Your task to perform on an android device: Search for bose soundlink mini on costco, select the first entry, and add it to the cart. Image 0: 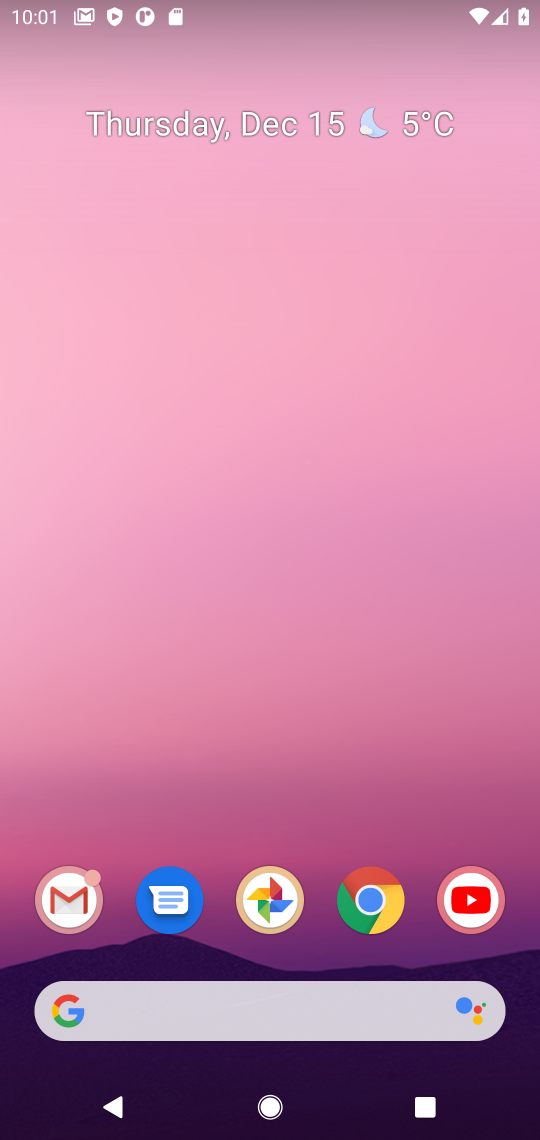
Step 0: click (364, 909)
Your task to perform on an android device: Search for bose soundlink mini on costco, select the first entry, and add it to the cart. Image 1: 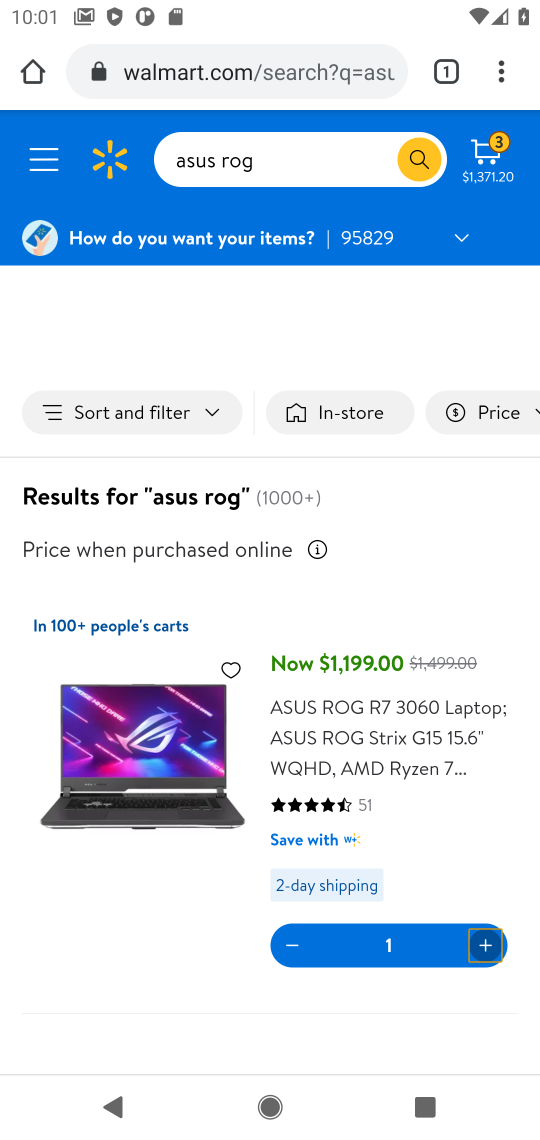
Step 1: click (236, 71)
Your task to perform on an android device: Search for bose soundlink mini on costco, select the first entry, and add it to the cart. Image 2: 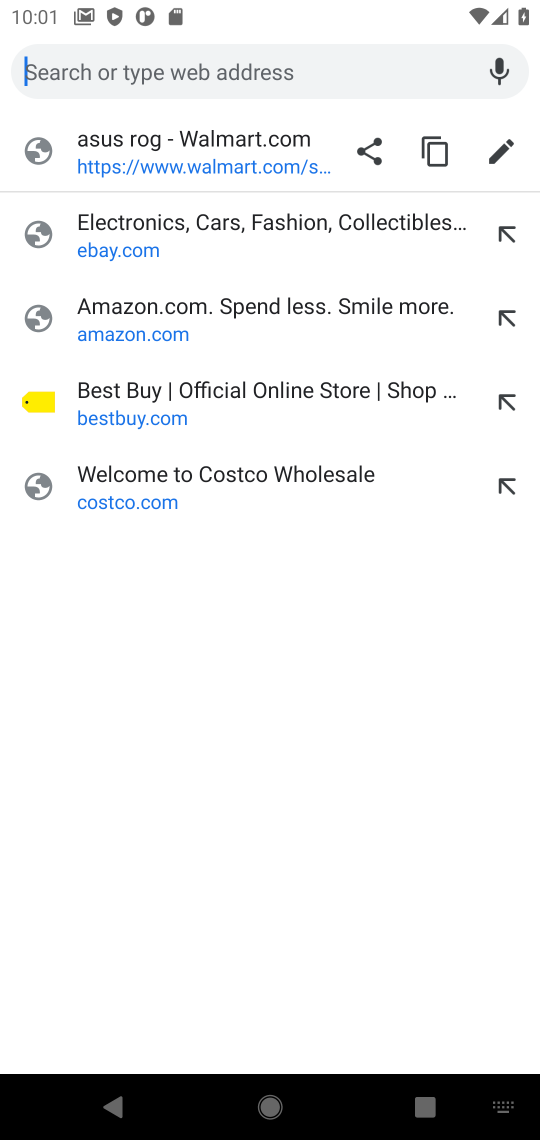
Step 2: type "costco"
Your task to perform on an android device: Search for bose soundlink mini on costco, select the first entry, and add it to the cart. Image 3: 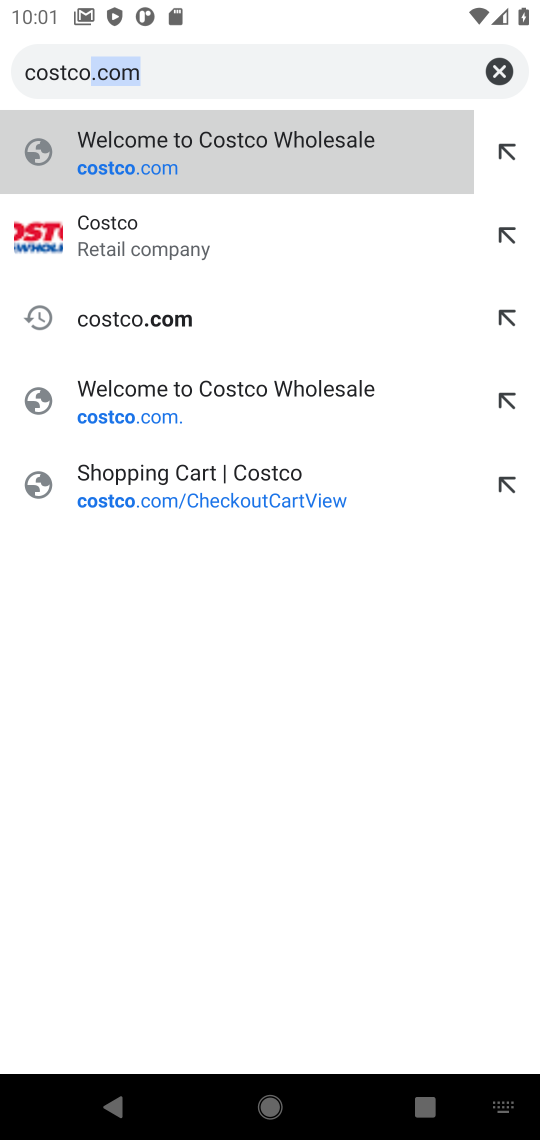
Step 3: click (181, 176)
Your task to perform on an android device: Search for bose soundlink mini on costco, select the first entry, and add it to the cart. Image 4: 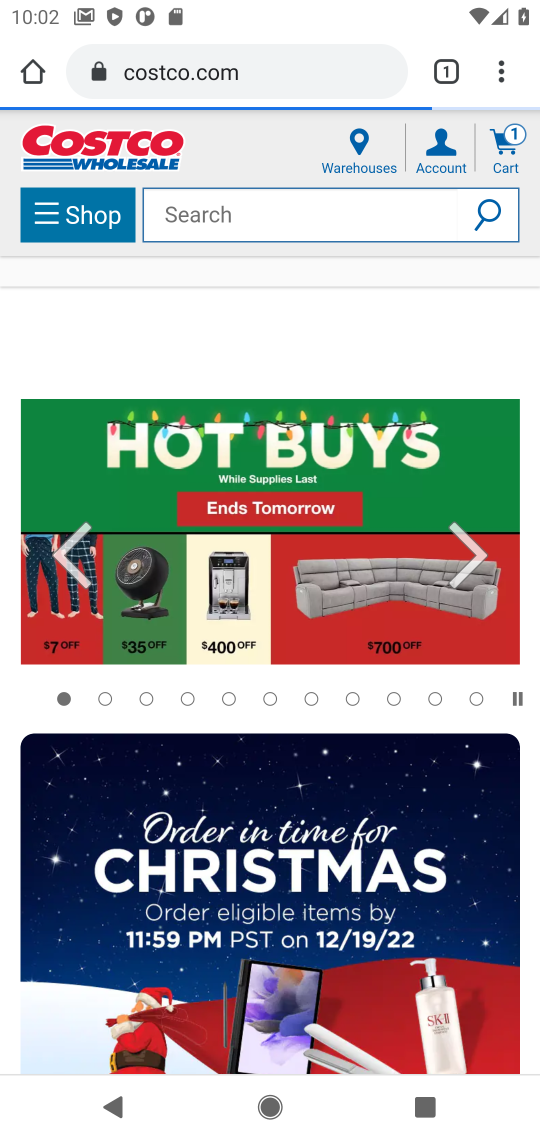
Step 4: drag from (397, 423) to (349, 59)
Your task to perform on an android device: Search for bose soundlink mini on costco, select the first entry, and add it to the cart. Image 5: 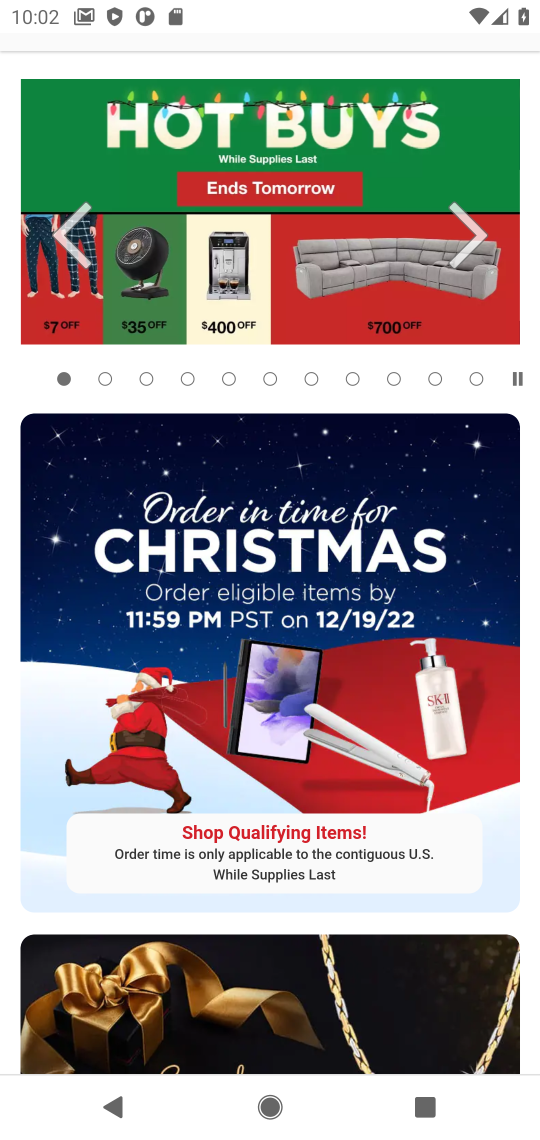
Step 5: drag from (333, 839) to (289, 341)
Your task to perform on an android device: Search for bose soundlink mini on costco, select the first entry, and add it to the cart. Image 6: 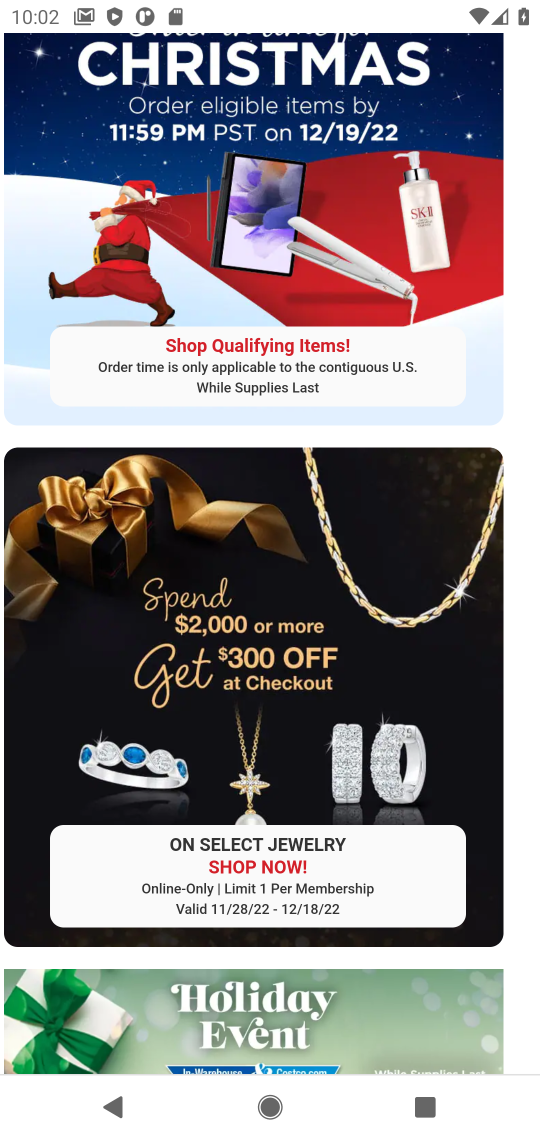
Step 6: drag from (467, 403) to (402, 1093)
Your task to perform on an android device: Search for bose soundlink mini on costco, select the first entry, and add it to the cart. Image 7: 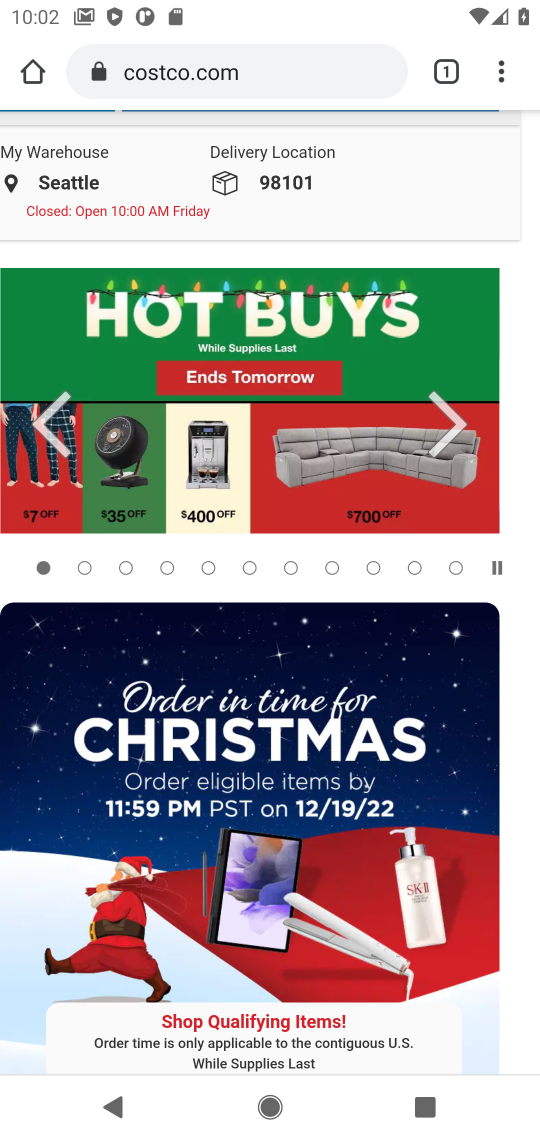
Step 7: drag from (386, 180) to (359, 945)
Your task to perform on an android device: Search for bose soundlink mini on costco, select the first entry, and add it to the cart. Image 8: 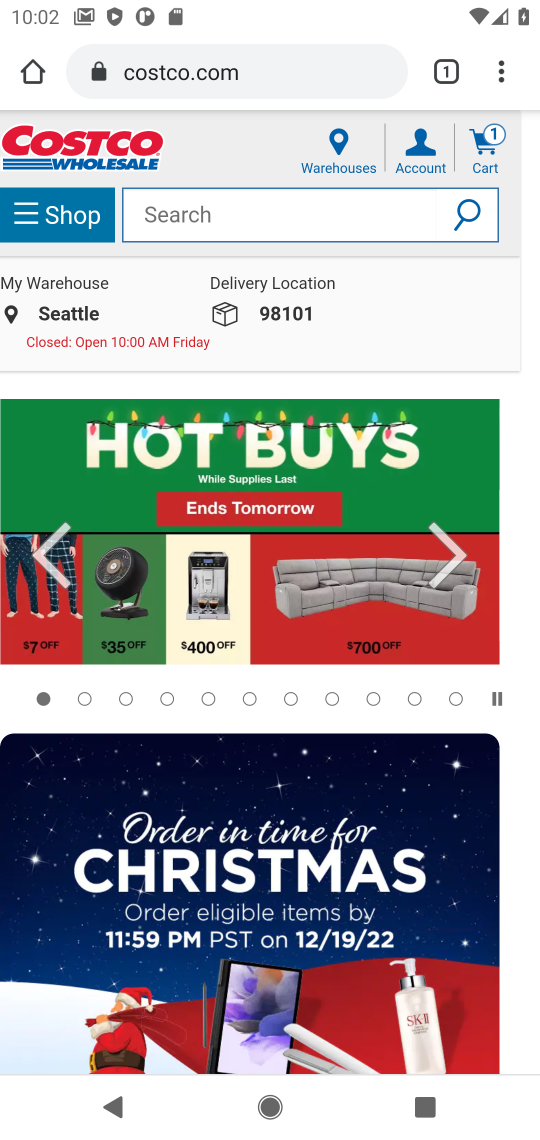
Step 8: click (263, 220)
Your task to perform on an android device: Search for bose soundlink mini on costco, select the first entry, and add it to the cart. Image 9: 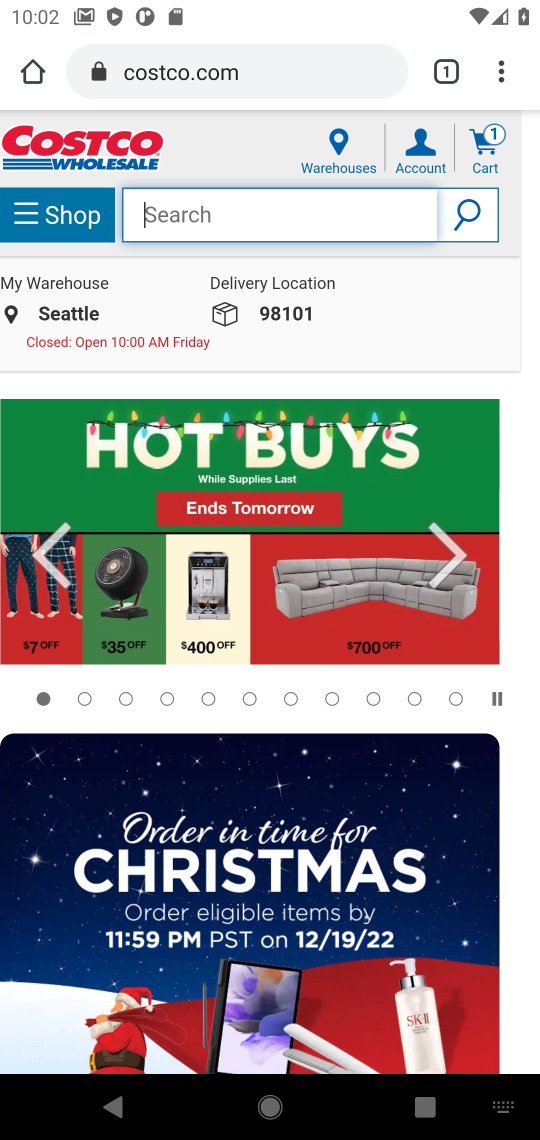
Step 9: type "costco"
Your task to perform on an android device: Search for bose soundlink mini on costco, select the first entry, and add it to the cart. Image 10: 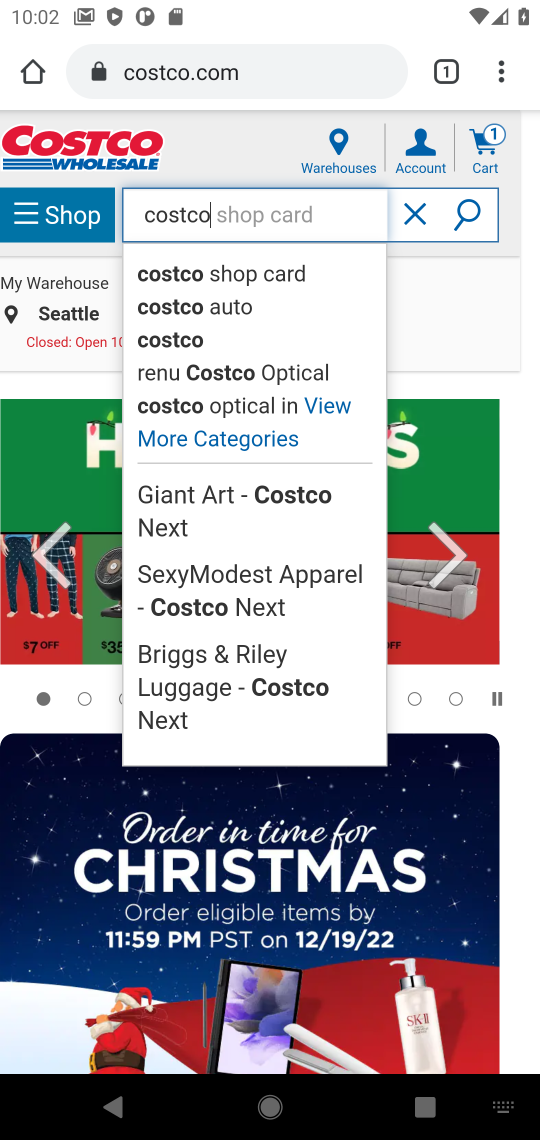
Step 10: press enter
Your task to perform on an android device: Search for bose soundlink mini on costco, select the first entry, and add it to the cart. Image 11: 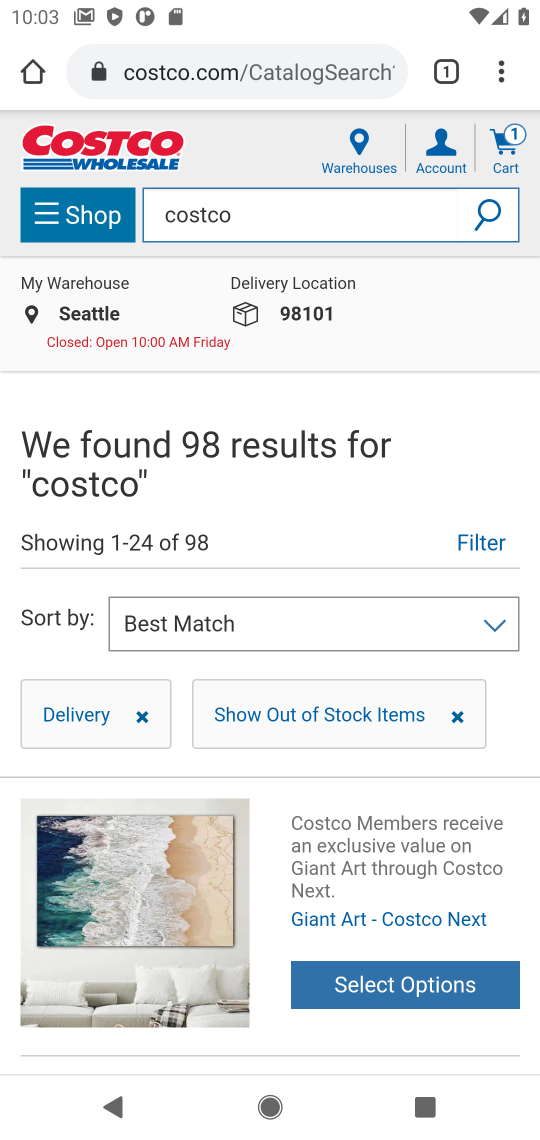
Step 11: click (286, 215)
Your task to perform on an android device: Search for bose soundlink mini on costco, select the first entry, and add it to the cart. Image 12: 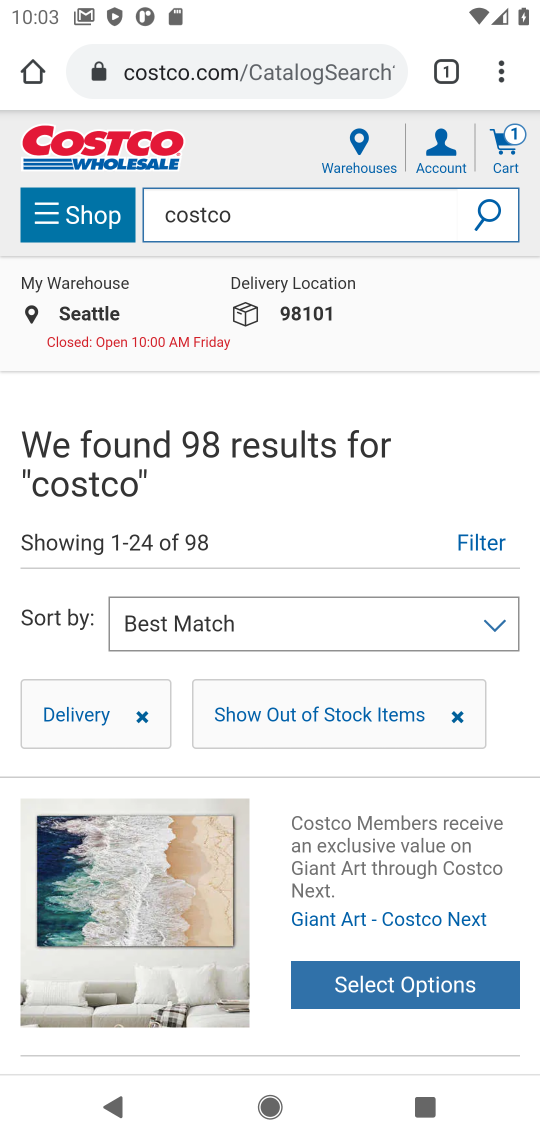
Step 12: click (286, 215)
Your task to perform on an android device: Search for bose soundlink mini on costco, select the first entry, and add it to the cart. Image 13: 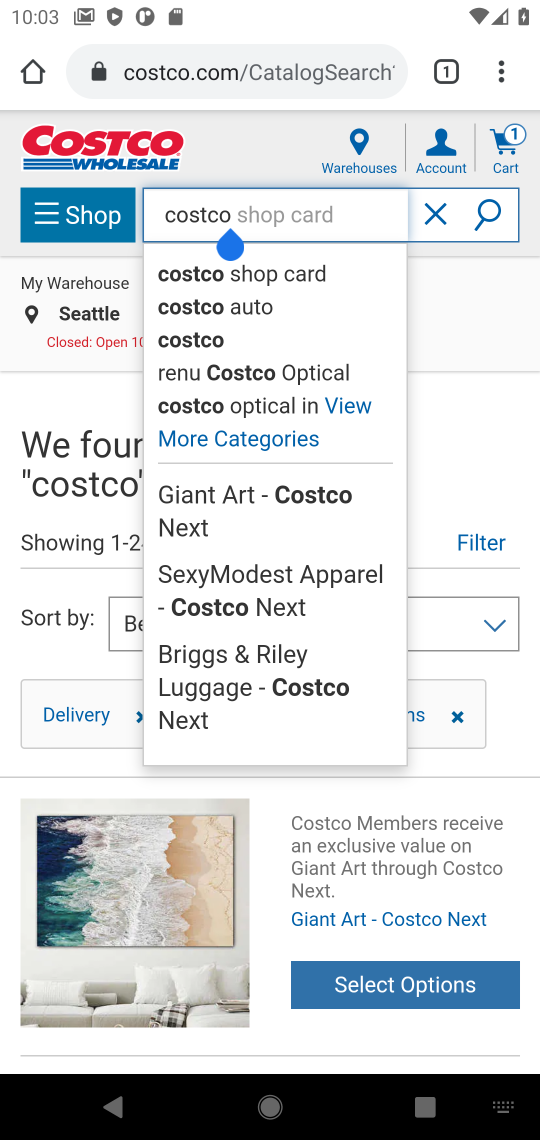
Step 13: click (435, 212)
Your task to perform on an android device: Search for bose soundlink mini on costco, select the first entry, and add it to the cart. Image 14: 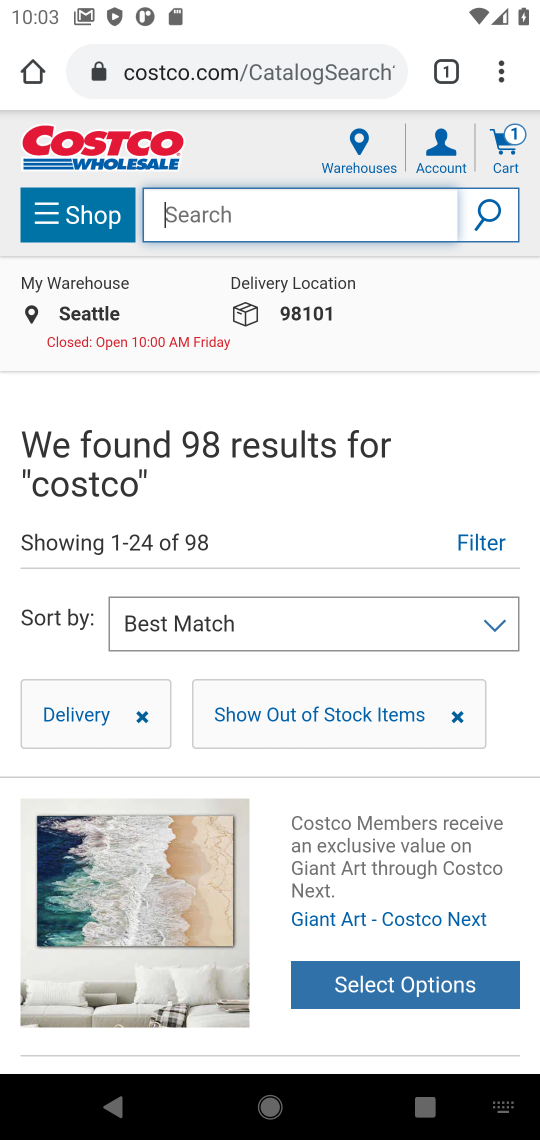
Step 14: type "bose soundlink mini"
Your task to perform on an android device: Search for bose soundlink mini on costco, select the first entry, and add it to the cart. Image 15: 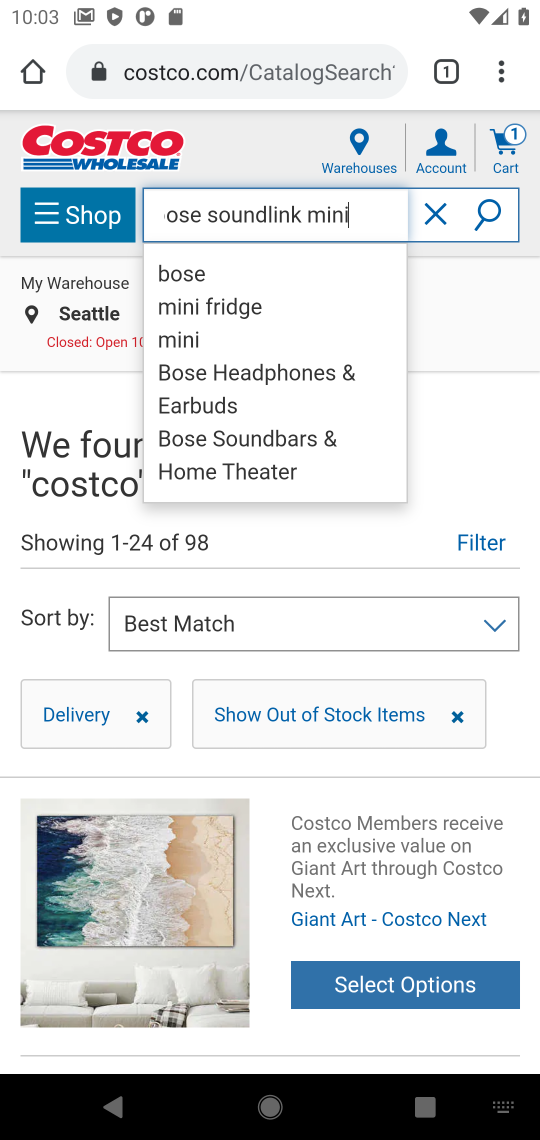
Step 15: press enter
Your task to perform on an android device: Search for bose soundlink mini on costco, select the first entry, and add it to the cart. Image 16: 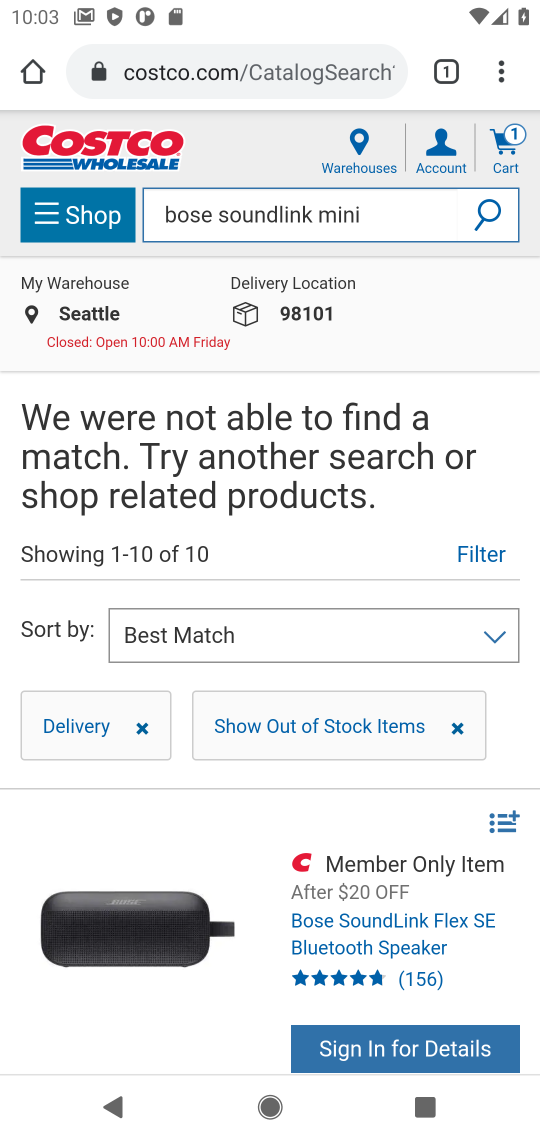
Step 16: task complete